Your task to perform on an android device: see creations saved in the google photos Image 0: 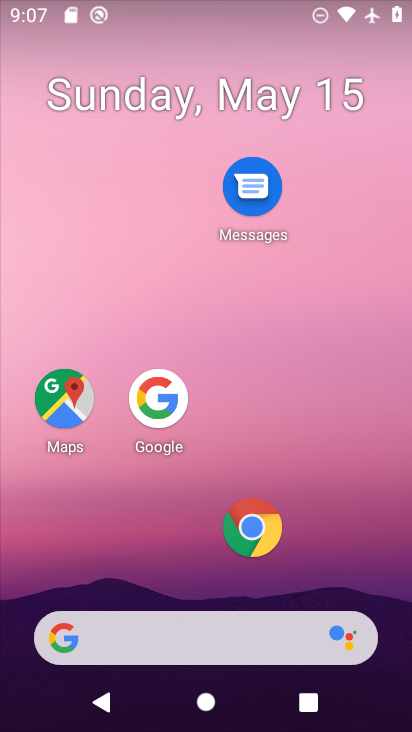
Step 0: press home button
Your task to perform on an android device: see creations saved in the google photos Image 1: 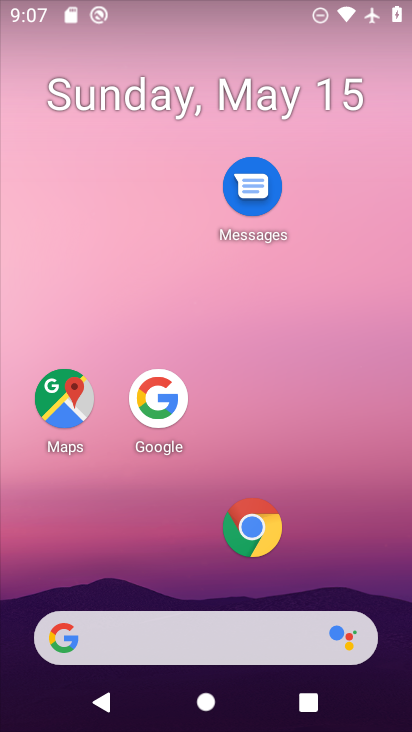
Step 1: drag from (135, 636) to (305, 107)
Your task to perform on an android device: see creations saved in the google photos Image 2: 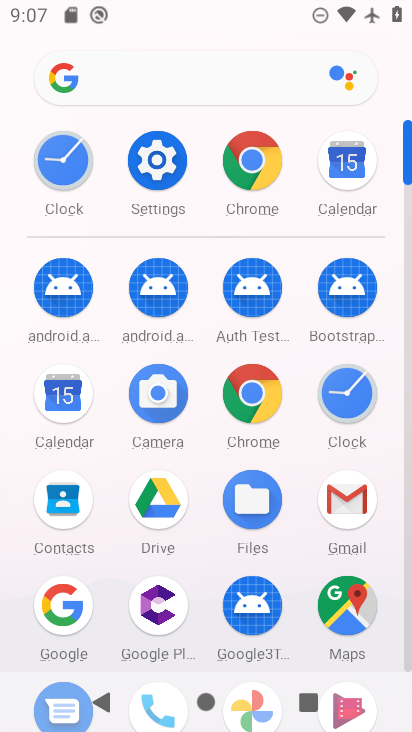
Step 2: drag from (222, 537) to (355, 218)
Your task to perform on an android device: see creations saved in the google photos Image 3: 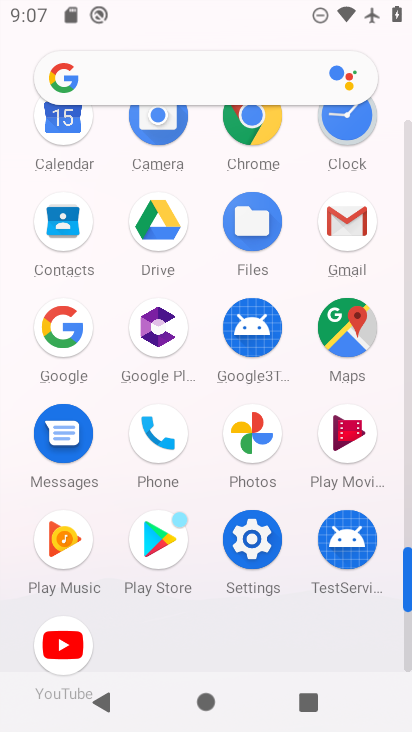
Step 3: click (255, 428)
Your task to perform on an android device: see creations saved in the google photos Image 4: 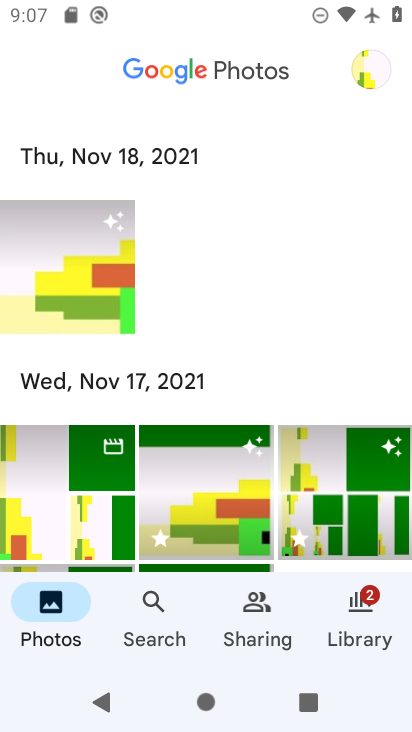
Step 4: click (154, 626)
Your task to perform on an android device: see creations saved in the google photos Image 5: 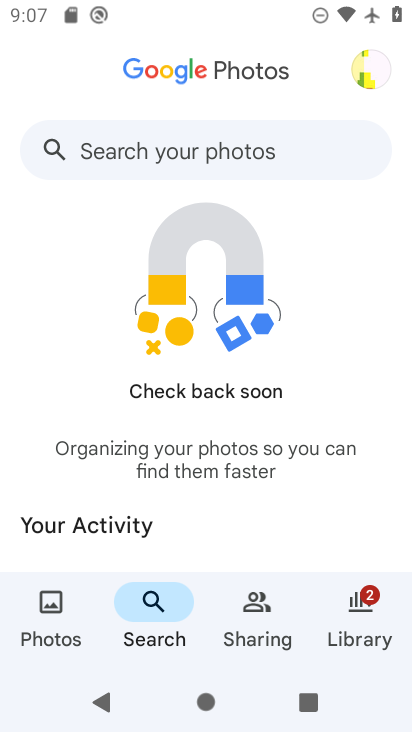
Step 5: drag from (214, 531) to (388, 55)
Your task to perform on an android device: see creations saved in the google photos Image 6: 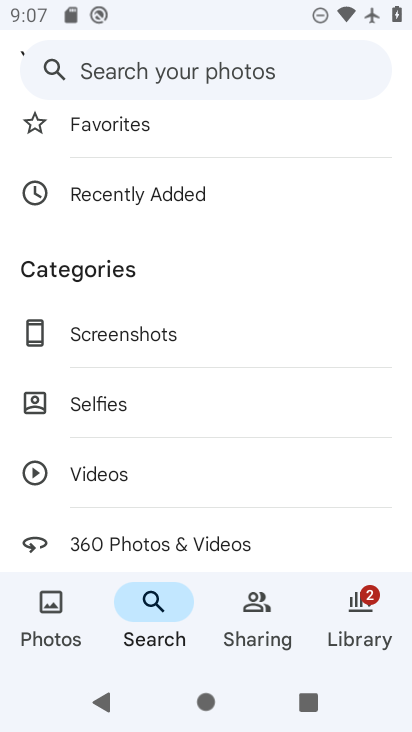
Step 6: drag from (179, 509) to (361, 112)
Your task to perform on an android device: see creations saved in the google photos Image 7: 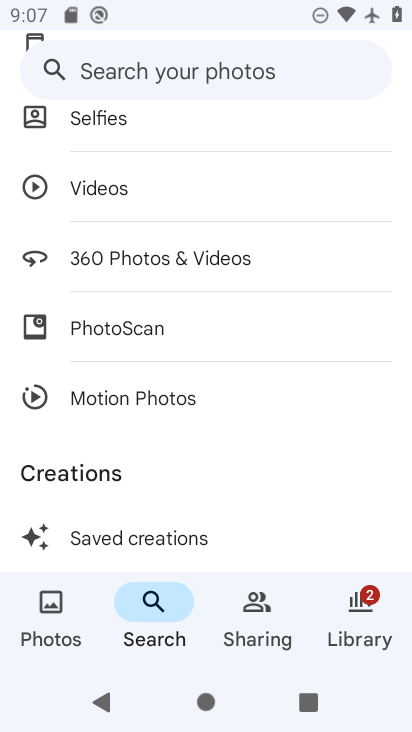
Step 7: drag from (164, 478) to (349, 98)
Your task to perform on an android device: see creations saved in the google photos Image 8: 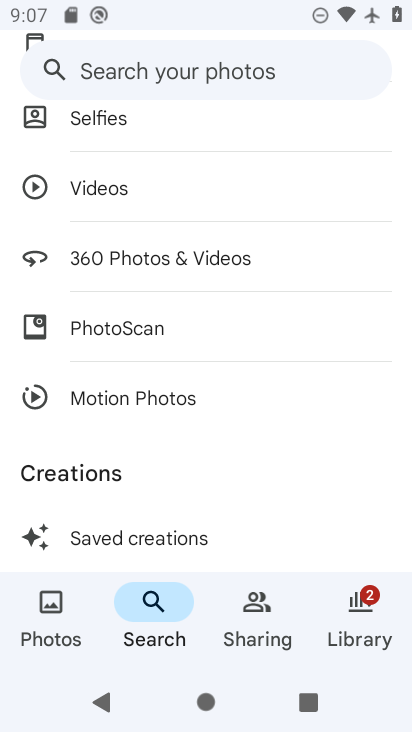
Step 8: click (166, 535)
Your task to perform on an android device: see creations saved in the google photos Image 9: 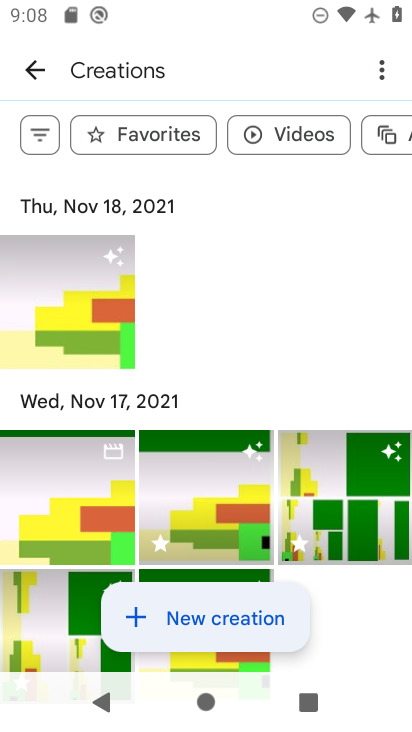
Step 9: task complete